Your task to perform on an android device: open chrome and create a bookmark for the current page Image 0: 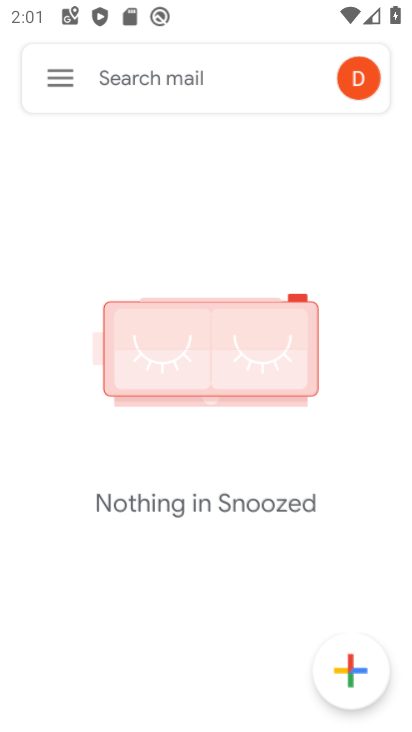
Step 0: drag from (334, 581) to (333, 82)
Your task to perform on an android device: open chrome and create a bookmark for the current page Image 1: 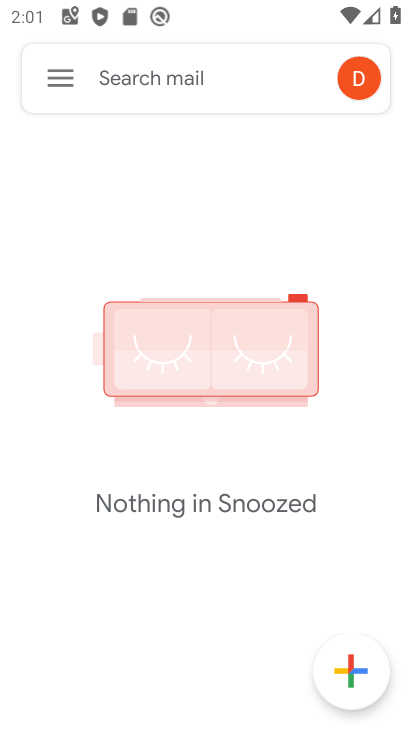
Step 1: press home button
Your task to perform on an android device: open chrome and create a bookmark for the current page Image 2: 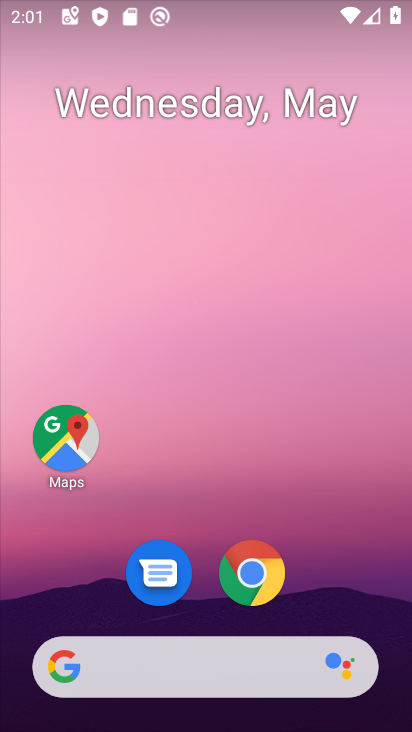
Step 2: click (241, 573)
Your task to perform on an android device: open chrome and create a bookmark for the current page Image 3: 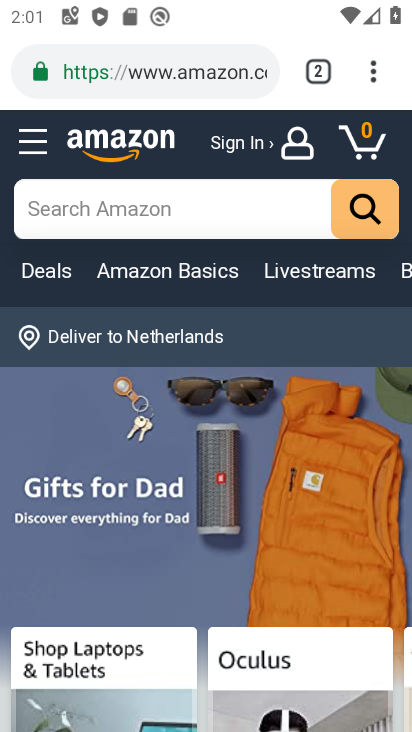
Step 3: click (370, 72)
Your task to perform on an android device: open chrome and create a bookmark for the current page Image 4: 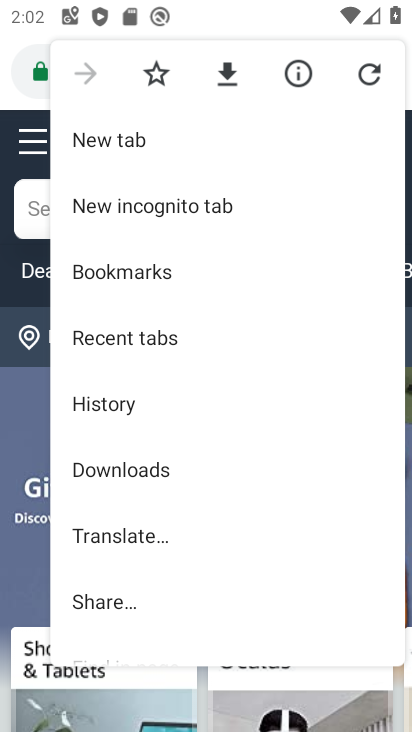
Step 4: click (160, 74)
Your task to perform on an android device: open chrome and create a bookmark for the current page Image 5: 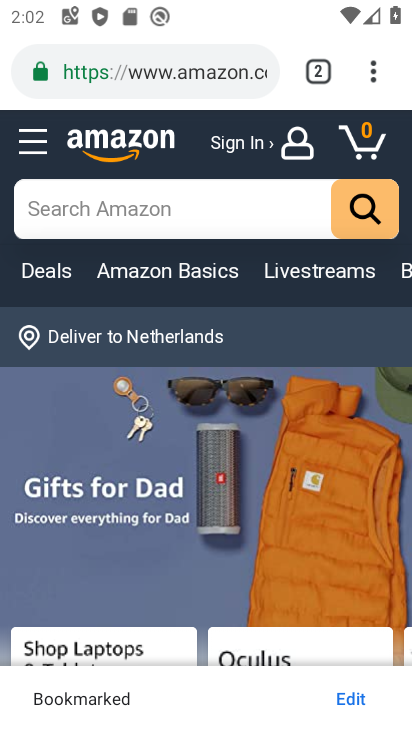
Step 5: task complete